Your task to perform on an android device: move an email to a new category in the gmail app Image 0: 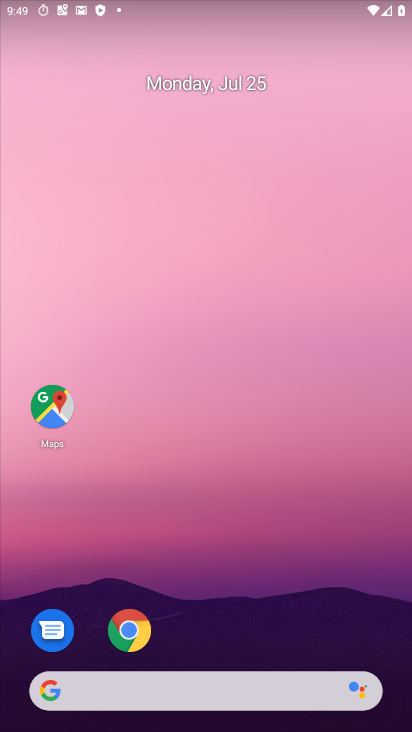
Step 0: press home button
Your task to perform on an android device: move an email to a new category in the gmail app Image 1: 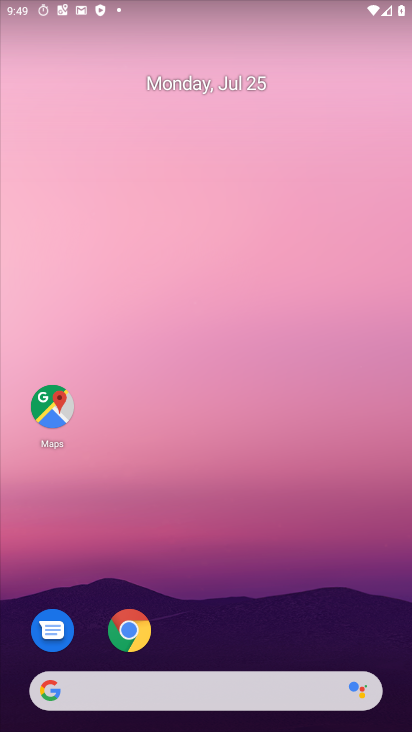
Step 1: drag from (243, 568) to (198, 0)
Your task to perform on an android device: move an email to a new category in the gmail app Image 2: 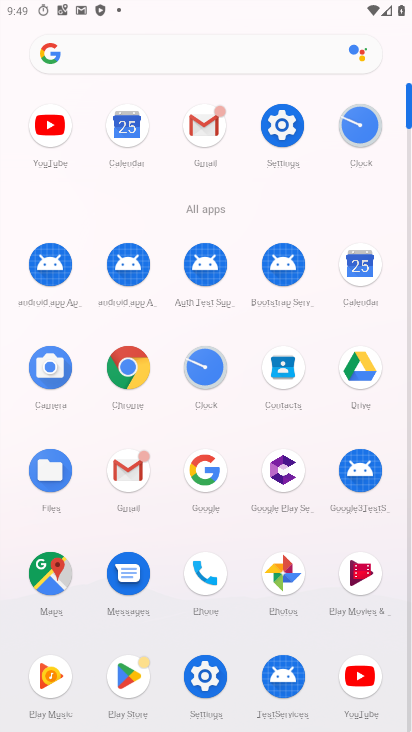
Step 2: click (201, 125)
Your task to perform on an android device: move an email to a new category in the gmail app Image 3: 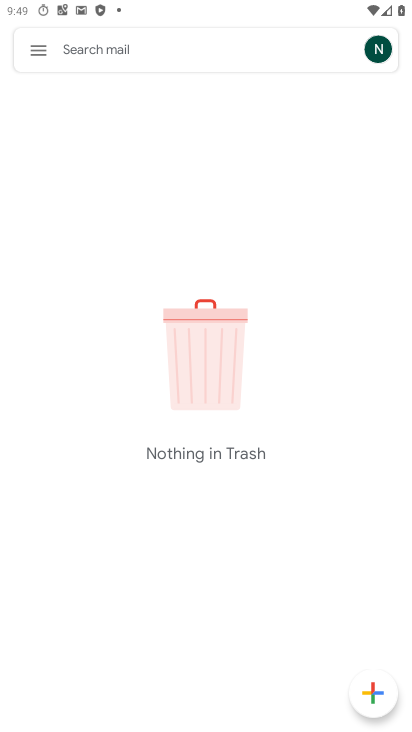
Step 3: click (37, 51)
Your task to perform on an android device: move an email to a new category in the gmail app Image 4: 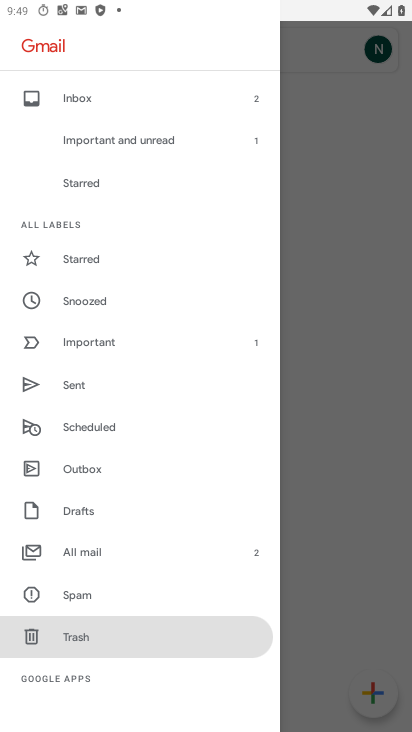
Step 4: click (92, 546)
Your task to perform on an android device: move an email to a new category in the gmail app Image 5: 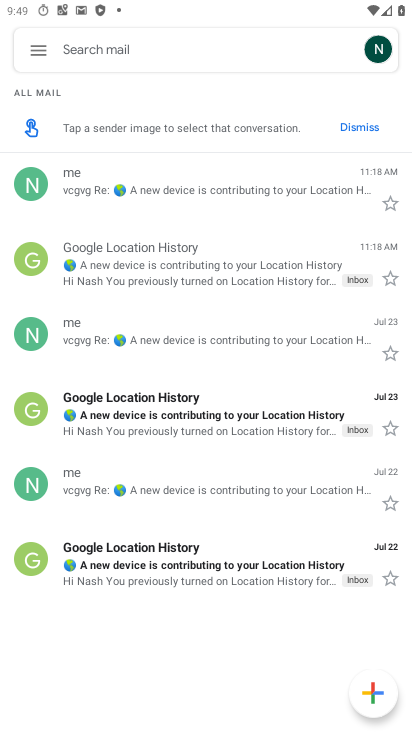
Step 5: click (233, 184)
Your task to perform on an android device: move an email to a new category in the gmail app Image 6: 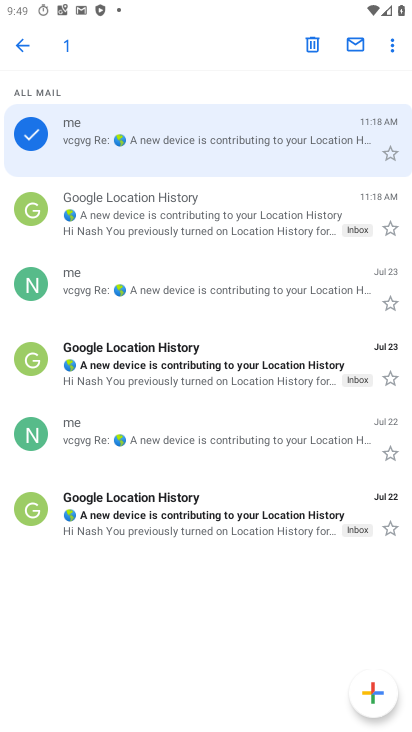
Step 6: click (392, 43)
Your task to perform on an android device: move an email to a new category in the gmail app Image 7: 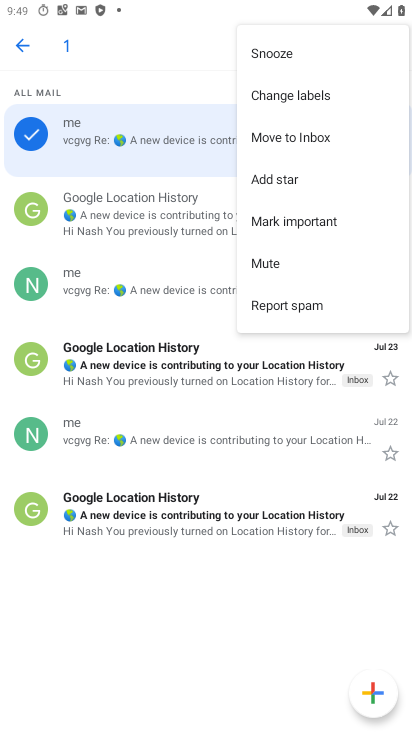
Step 7: click (284, 93)
Your task to perform on an android device: move an email to a new category in the gmail app Image 8: 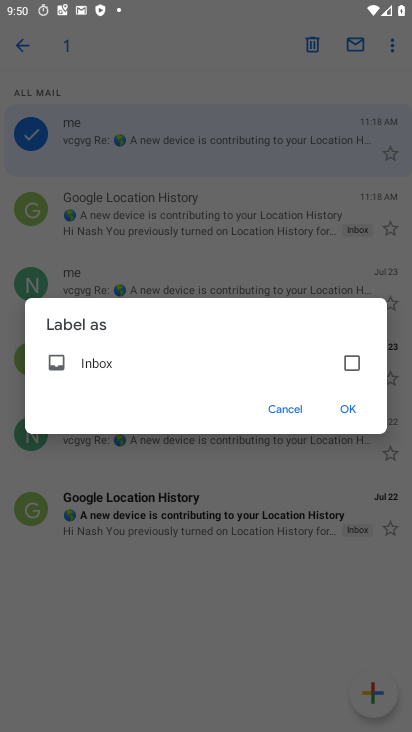
Step 8: click (348, 361)
Your task to perform on an android device: move an email to a new category in the gmail app Image 9: 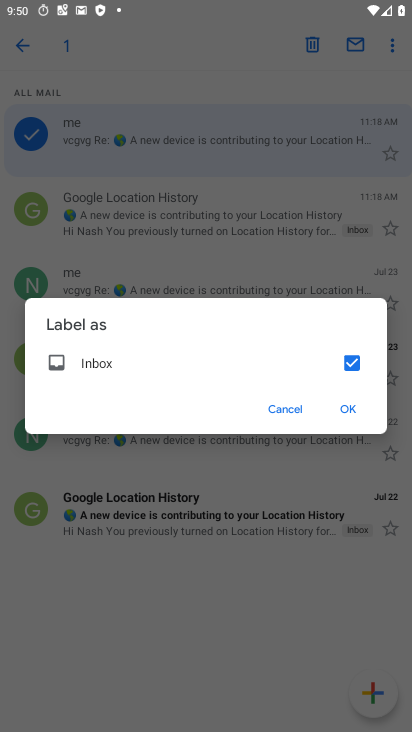
Step 9: click (352, 411)
Your task to perform on an android device: move an email to a new category in the gmail app Image 10: 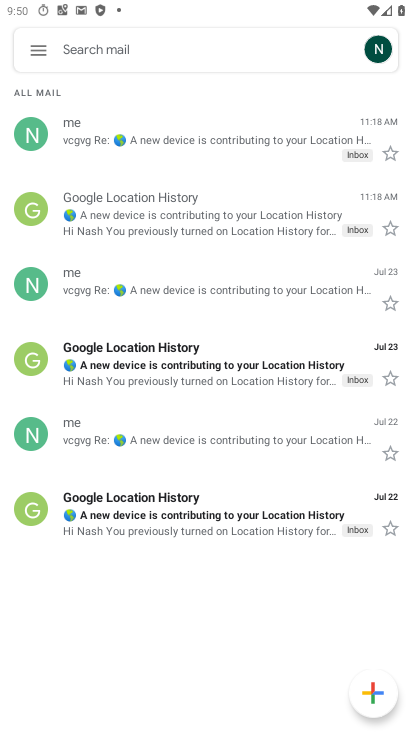
Step 10: task complete